Your task to perform on an android device: turn off notifications settings in the gmail app Image 0: 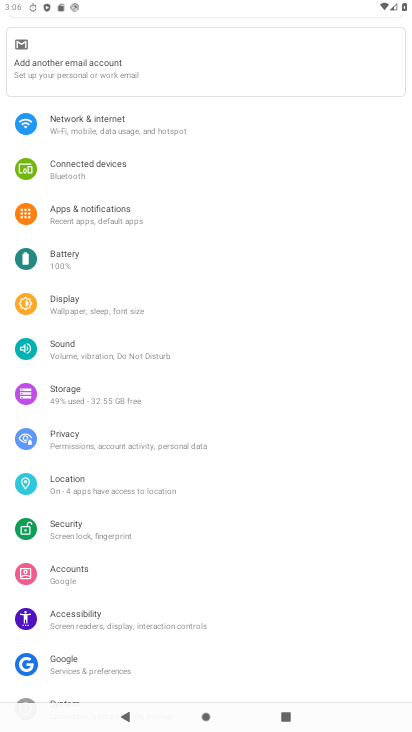
Step 0: click (82, 198)
Your task to perform on an android device: turn off notifications settings in the gmail app Image 1: 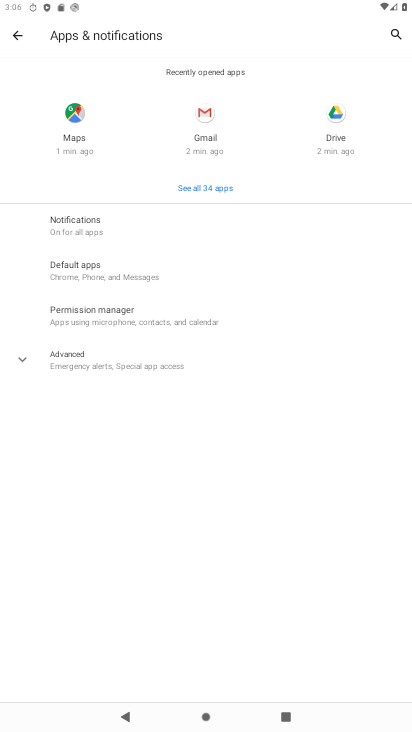
Step 1: click (93, 222)
Your task to perform on an android device: turn off notifications settings in the gmail app Image 2: 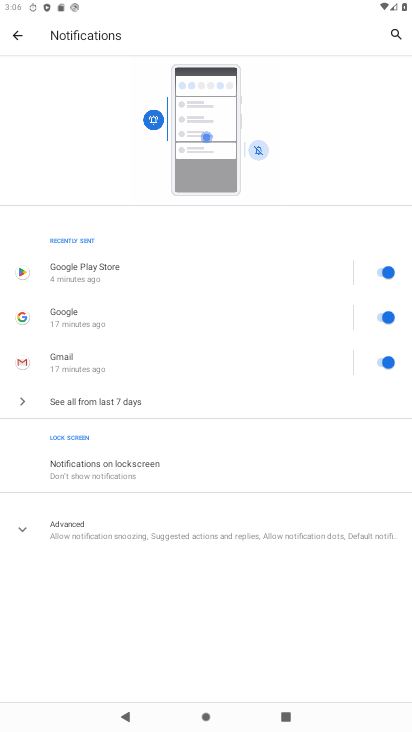
Step 2: press home button
Your task to perform on an android device: turn off notifications settings in the gmail app Image 3: 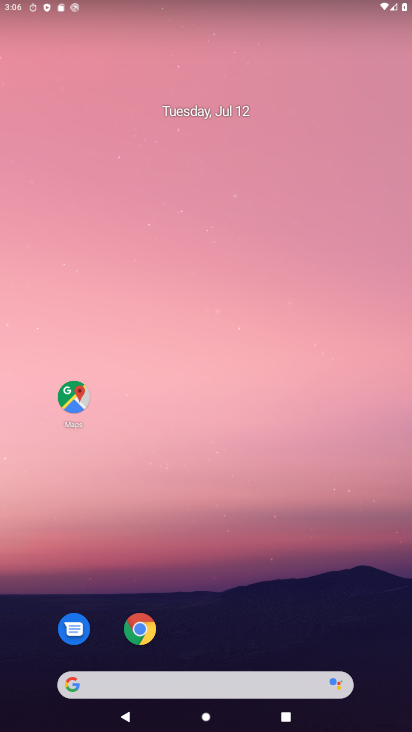
Step 3: drag from (269, 549) to (406, 75)
Your task to perform on an android device: turn off notifications settings in the gmail app Image 4: 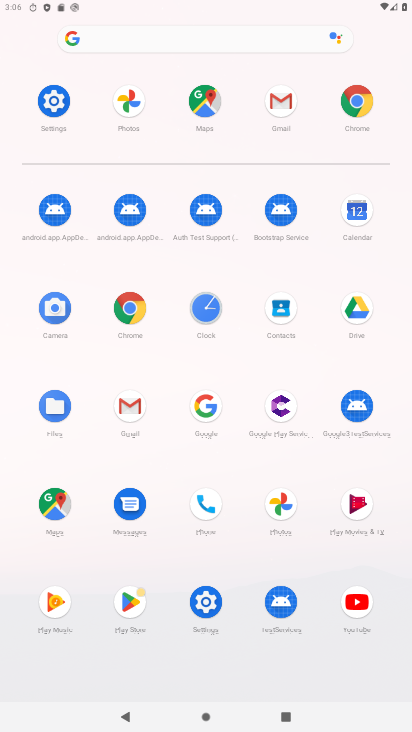
Step 4: click (136, 406)
Your task to perform on an android device: turn off notifications settings in the gmail app Image 5: 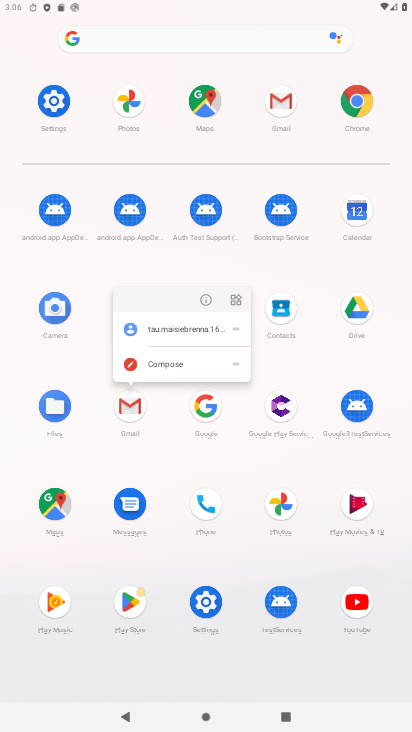
Step 5: click (202, 296)
Your task to perform on an android device: turn off notifications settings in the gmail app Image 6: 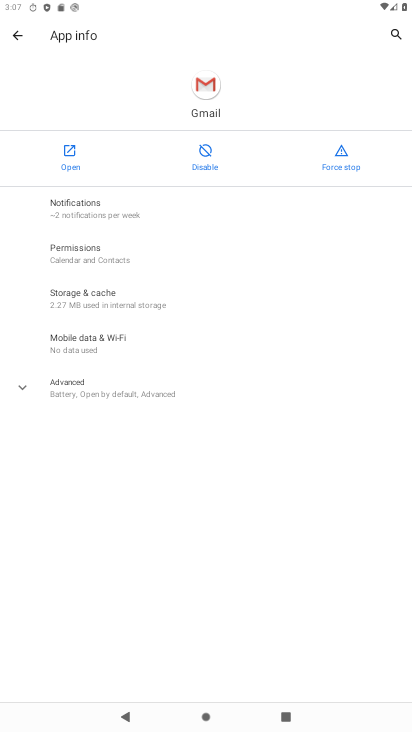
Step 6: click (127, 208)
Your task to perform on an android device: turn off notifications settings in the gmail app Image 7: 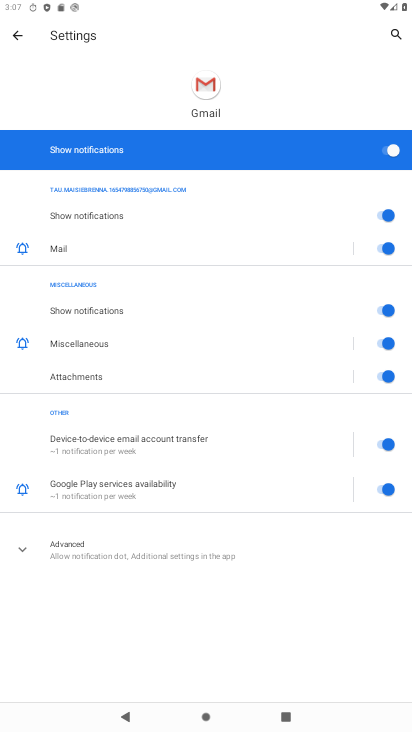
Step 7: click (385, 149)
Your task to perform on an android device: turn off notifications settings in the gmail app Image 8: 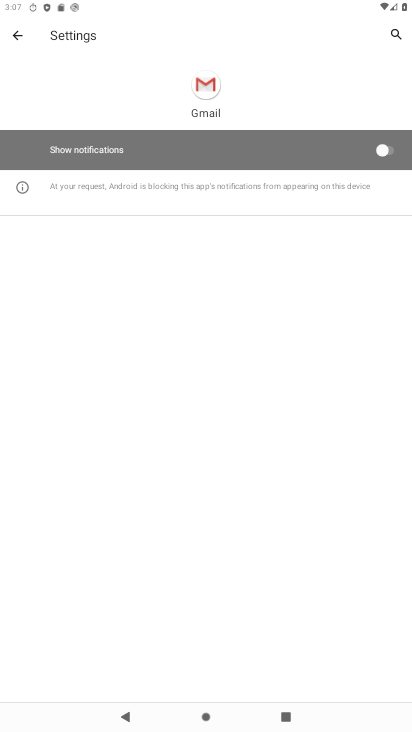
Step 8: task complete